Your task to perform on an android device: Go to location settings Image 0: 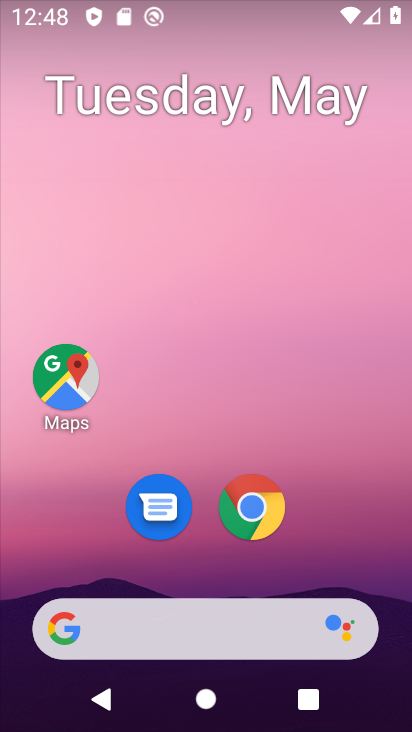
Step 0: drag from (359, 510) to (373, 90)
Your task to perform on an android device: Go to location settings Image 1: 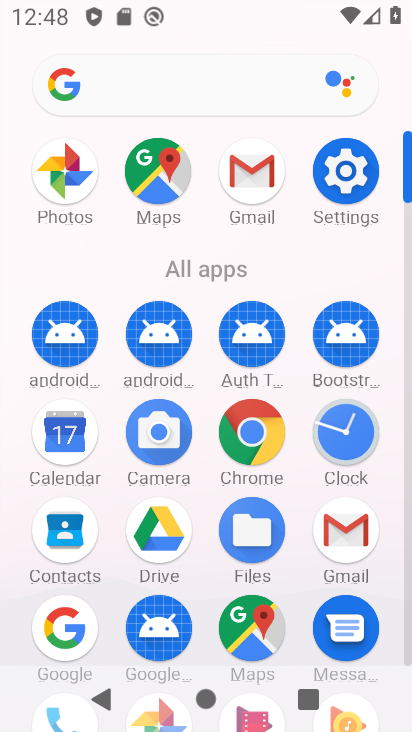
Step 1: click (347, 176)
Your task to perform on an android device: Go to location settings Image 2: 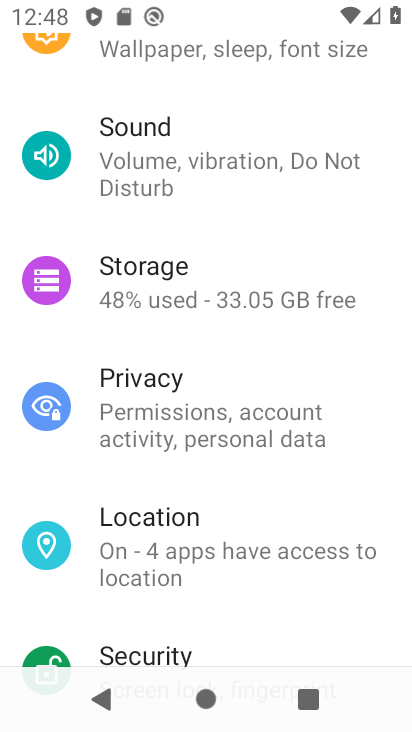
Step 2: click (234, 566)
Your task to perform on an android device: Go to location settings Image 3: 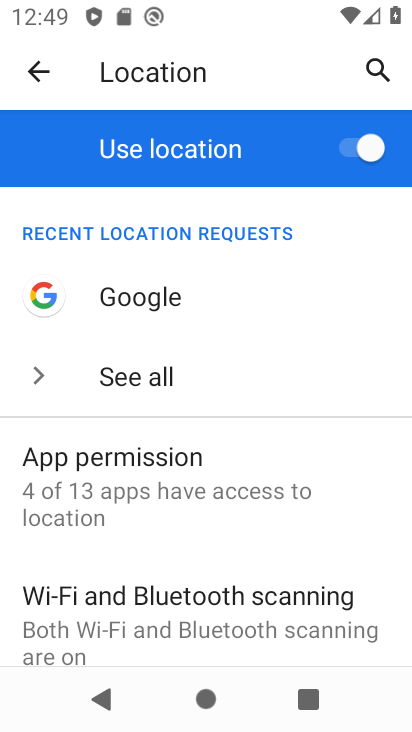
Step 3: task complete